Your task to perform on an android device: Go to Yahoo.com Image 0: 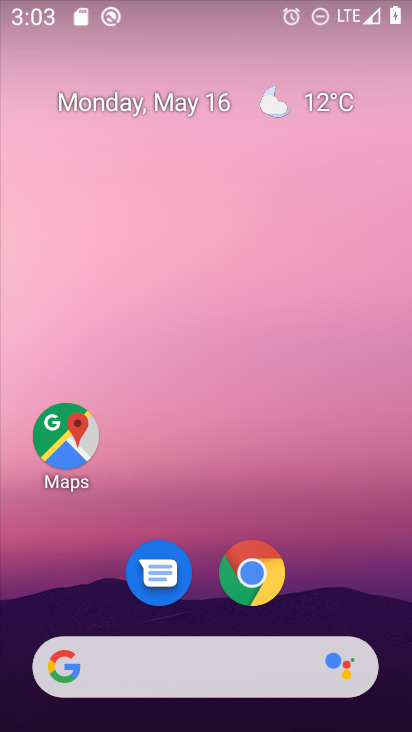
Step 0: click (262, 599)
Your task to perform on an android device: Go to Yahoo.com Image 1: 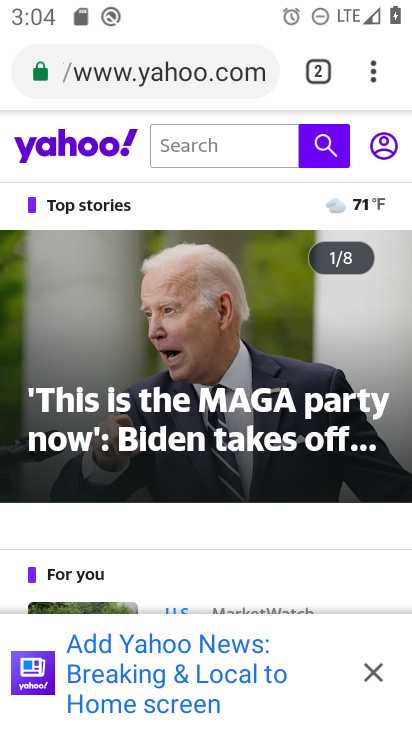
Step 1: task complete